Your task to perform on an android device: Open Google Chrome Image 0: 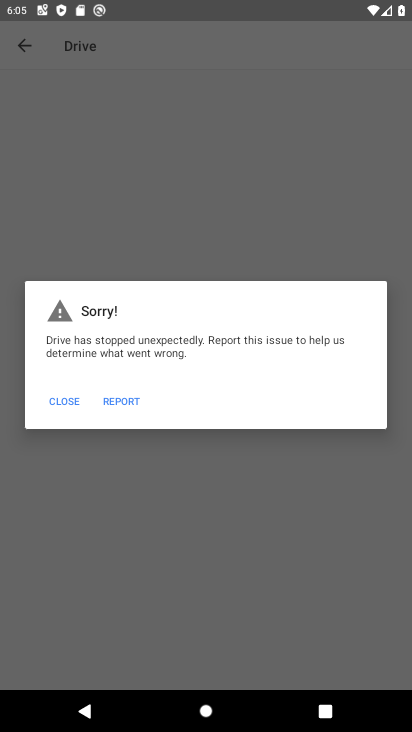
Step 0: press back button
Your task to perform on an android device: Open Google Chrome Image 1: 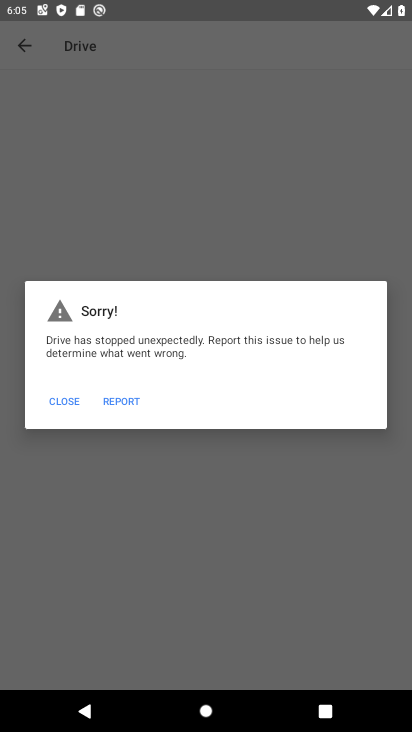
Step 1: press home button
Your task to perform on an android device: Open Google Chrome Image 2: 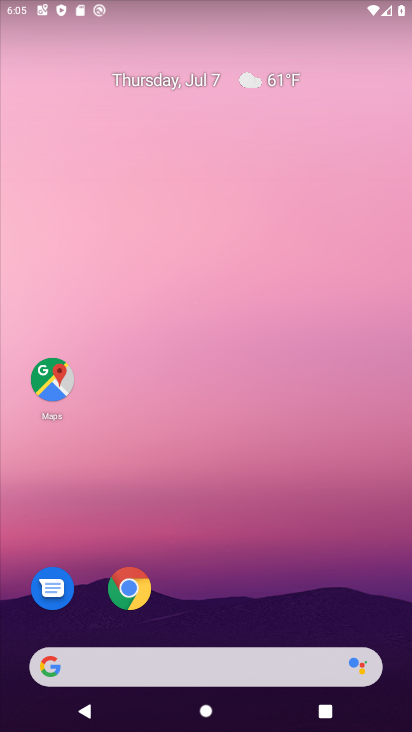
Step 2: click (128, 587)
Your task to perform on an android device: Open Google Chrome Image 3: 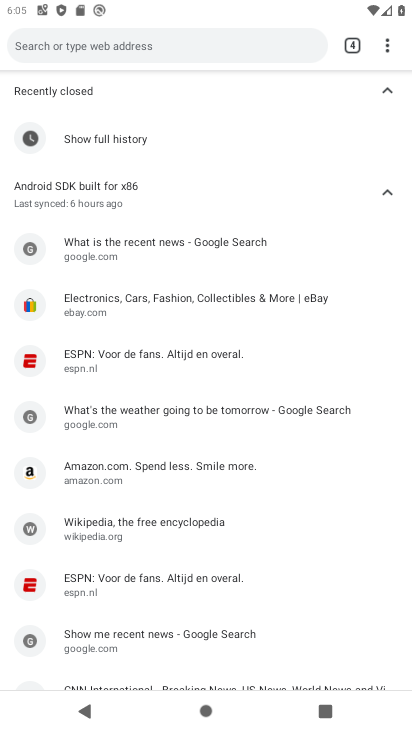
Step 3: task complete